Your task to perform on an android device: show emergency info Image 0: 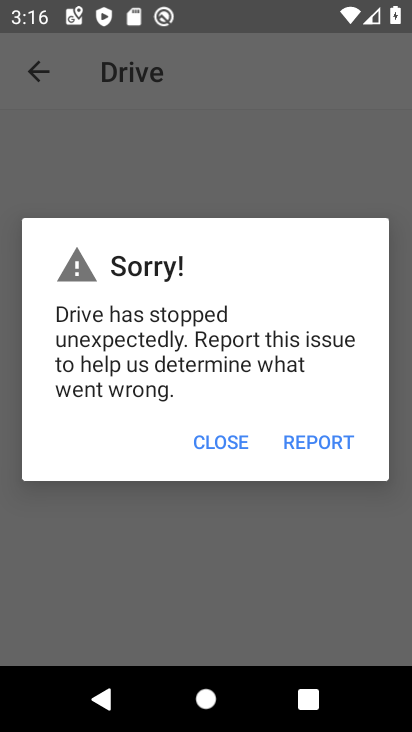
Step 0: press back button
Your task to perform on an android device: show emergency info Image 1: 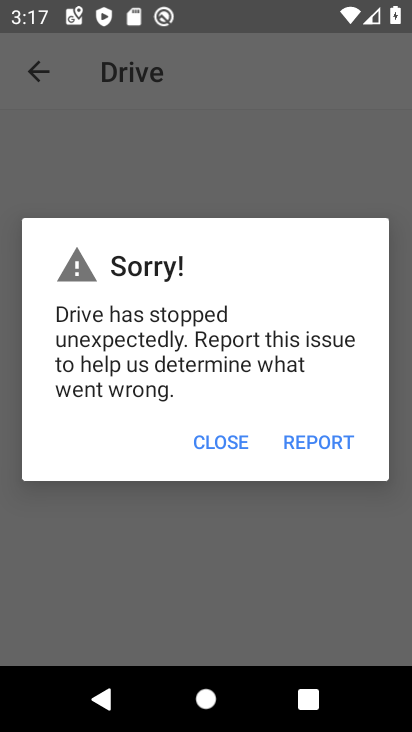
Step 1: press home button
Your task to perform on an android device: show emergency info Image 2: 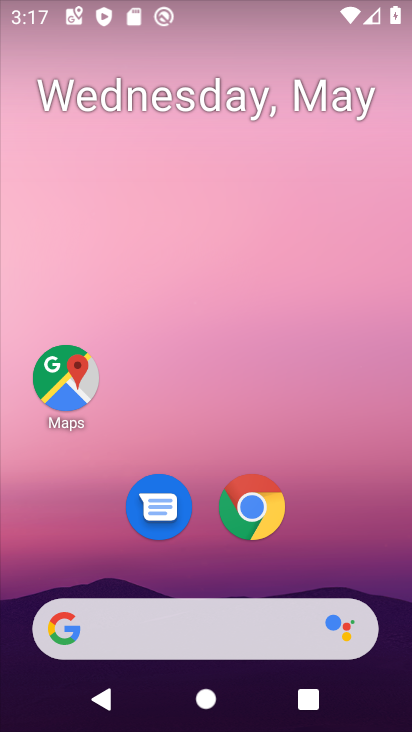
Step 2: drag from (148, 555) to (234, 53)
Your task to perform on an android device: show emergency info Image 3: 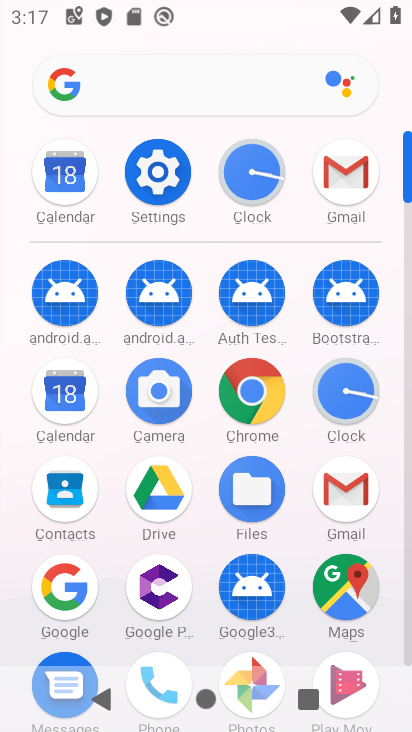
Step 3: click (157, 168)
Your task to perform on an android device: show emergency info Image 4: 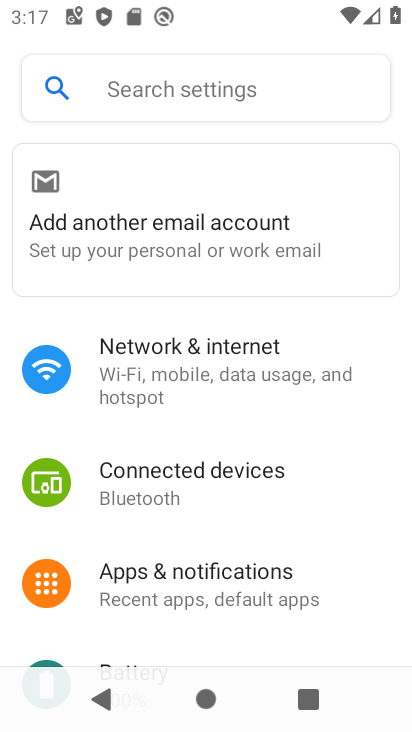
Step 4: drag from (189, 547) to (255, 76)
Your task to perform on an android device: show emergency info Image 5: 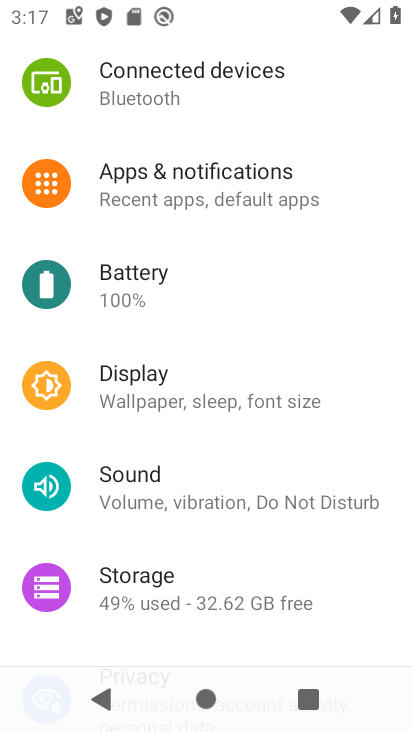
Step 5: drag from (216, 641) to (300, 14)
Your task to perform on an android device: show emergency info Image 6: 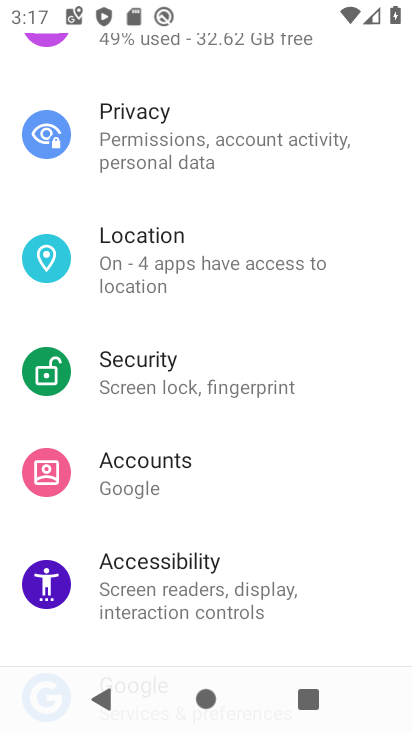
Step 6: drag from (167, 581) to (230, 14)
Your task to perform on an android device: show emergency info Image 7: 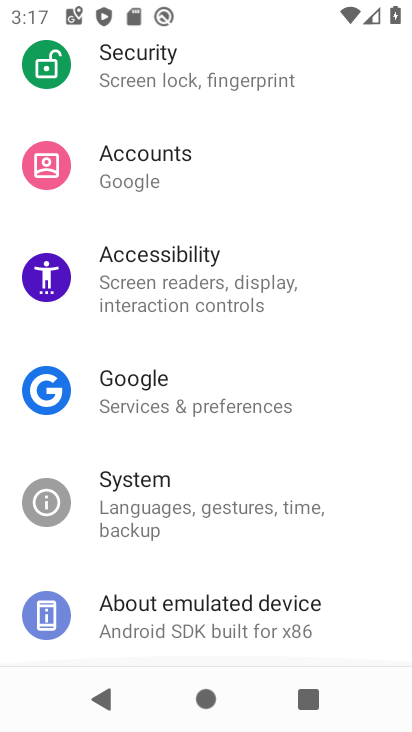
Step 7: drag from (272, 561) to (288, 64)
Your task to perform on an android device: show emergency info Image 8: 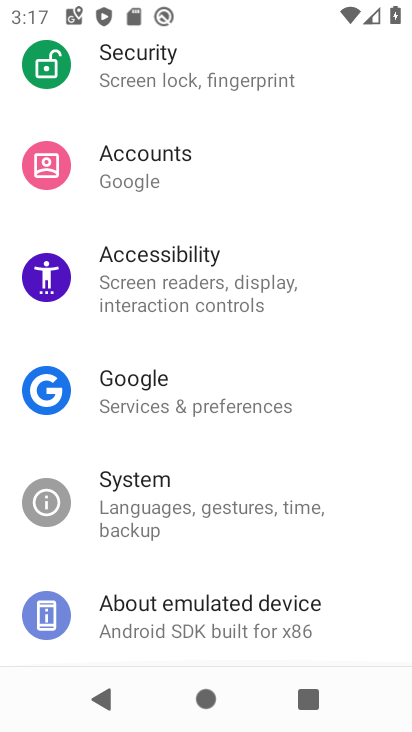
Step 8: click (133, 488)
Your task to perform on an android device: show emergency info Image 9: 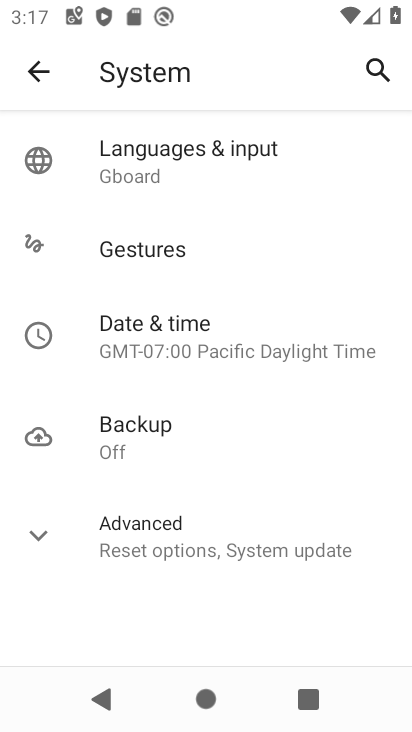
Step 9: click (28, 65)
Your task to perform on an android device: show emergency info Image 10: 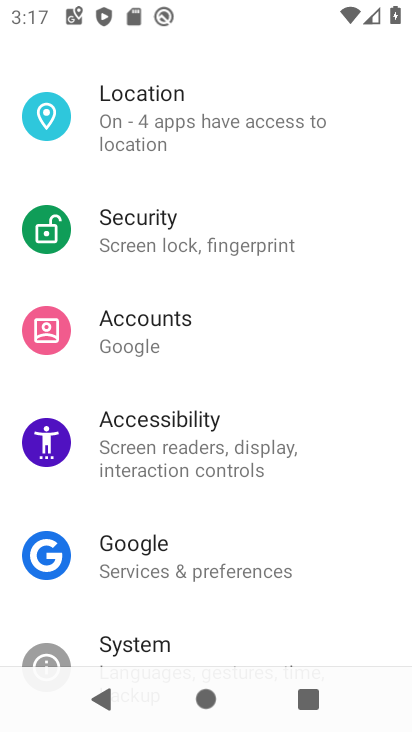
Step 10: drag from (141, 591) to (223, 21)
Your task to perform on an android device: show emergency info Image 11: 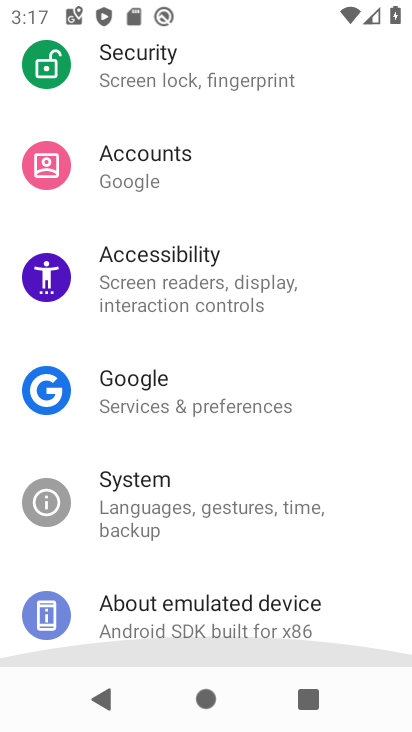
Step 11: click (202, 623)
Your task to perform on an android device: show emergency info Image 12: 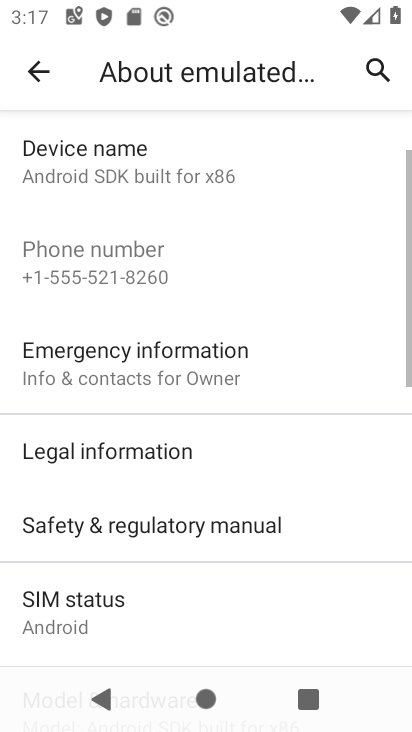
Step 12: click (140, 375)
Your task to perform on an android device: show emergency info Image 13: 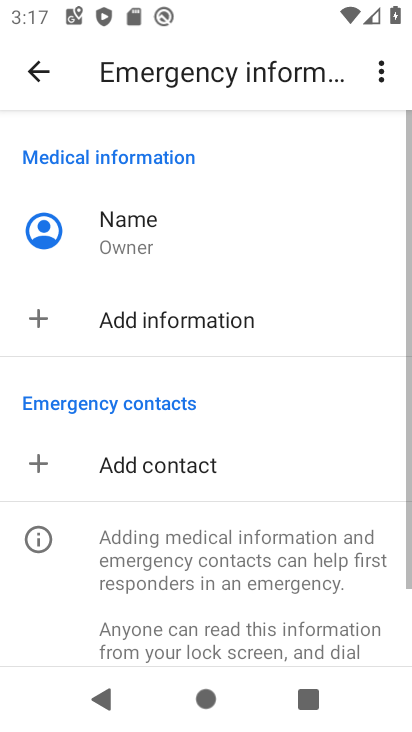
Step 13: task complete